Your task to perform on an android device: remove spam from my inbox in the gmail app Image 0: 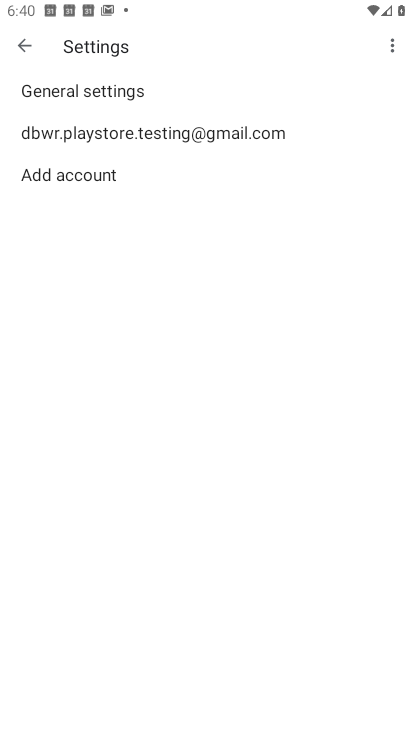
Step 0: press home button
Your task to perform on an android device: remove spam from my inbox in the gmail app Image 1: 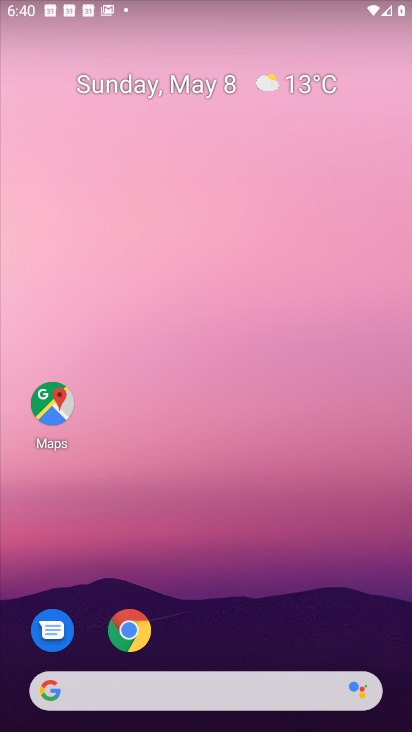
Step 1: drag from (215, 566) to (79, 30)
Your task to perform on an android device: remove spam from my inbox in the gmail app Image 2: 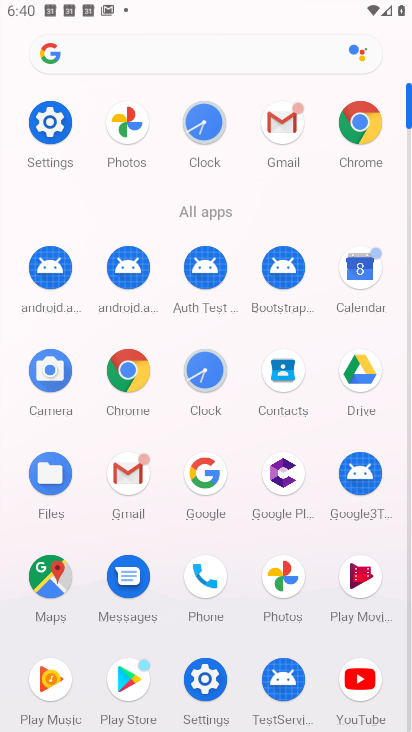
Step 2: click (282, 119)
Your task to perform on an android device: remove spam from my inbox in the gmail app Image 3: 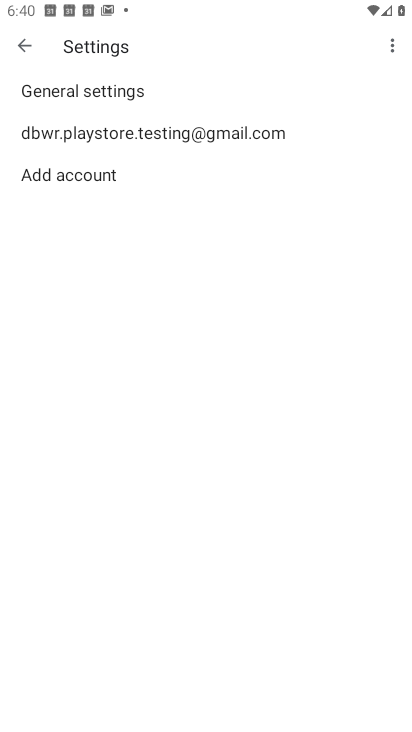
Step 3: click (22, 43)
Your task to perform on an android device: remove spam from my inbox in the gmail app Image 4: 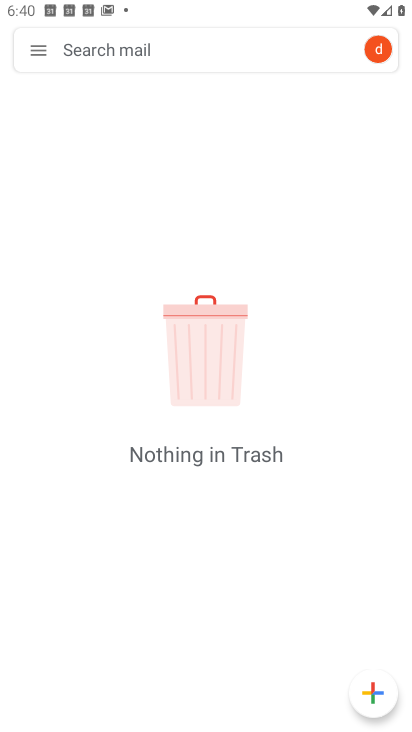
Step 4: click (34, 43)
Your task to perform on an android device: remove spam from my inbox in the gmail app Image 5: 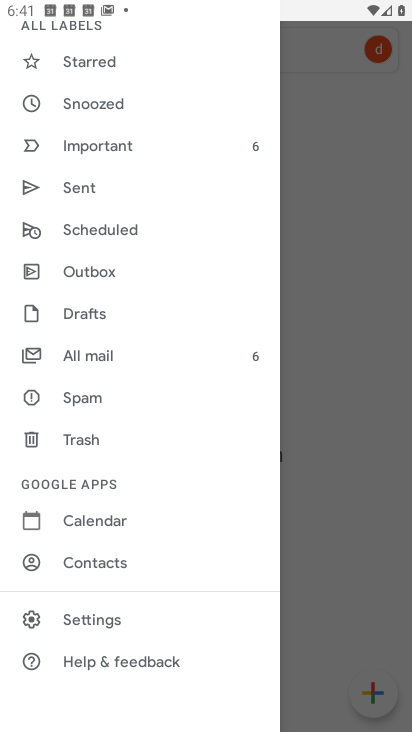
Step 5: click (108, 392)
Your task to perform on an android device: remove spam from my inbox in the gmail app Image 6: 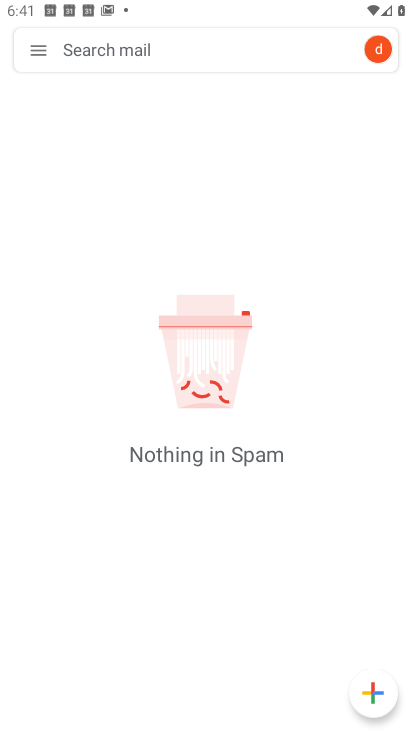
Step 6: task complete